Your task to perform on an android device: turn off wifi Image 0: 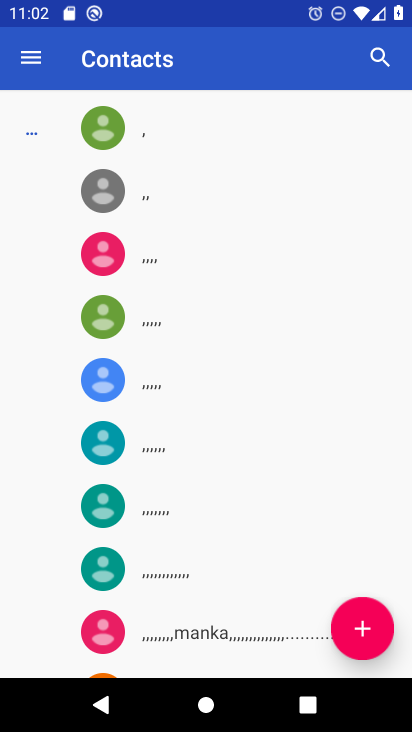
Step 0: press home button
Your task to perform on an android device: turn off wifi Image 1: 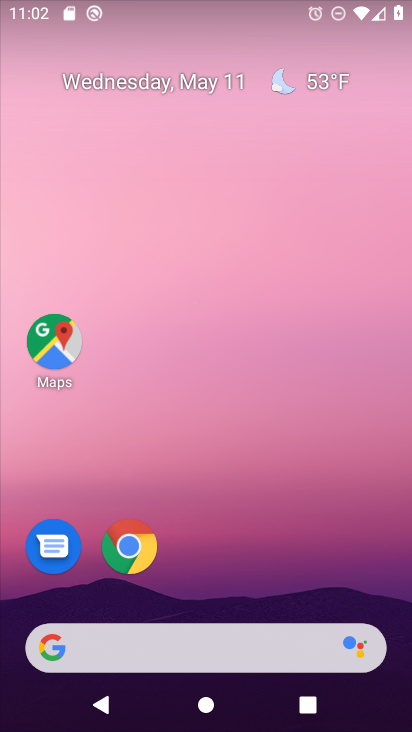
Step 1: drag from (225, 7) to (270, 452)
Your task to perform on an android device: turn off wifi Image 2: 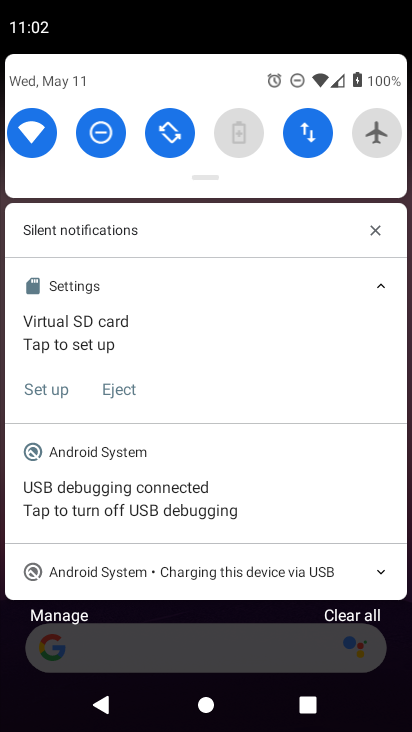
Step 2: click (25, 122)
Your task to perform on an android device: turn off wifi Image 3: 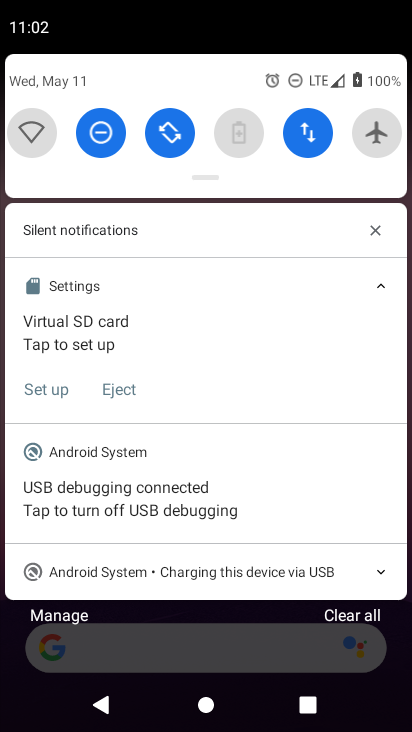
Step 3: task complete